Your task to perform on an android device: open device folders in google photos Image 0: 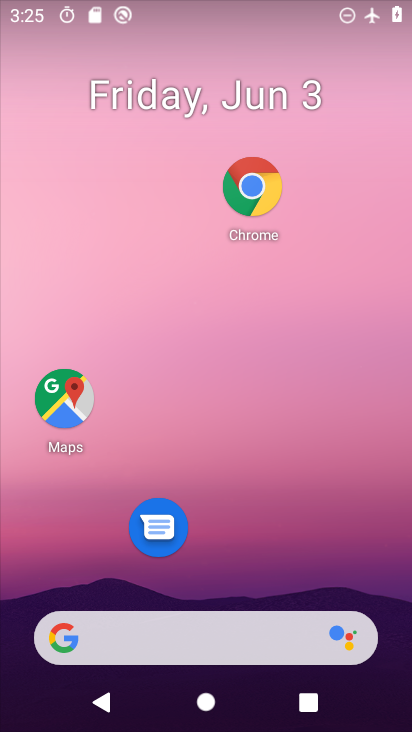
Step 0: click (293, 134)
Your task to perform on an android device: open device folders in google photos Image 1: 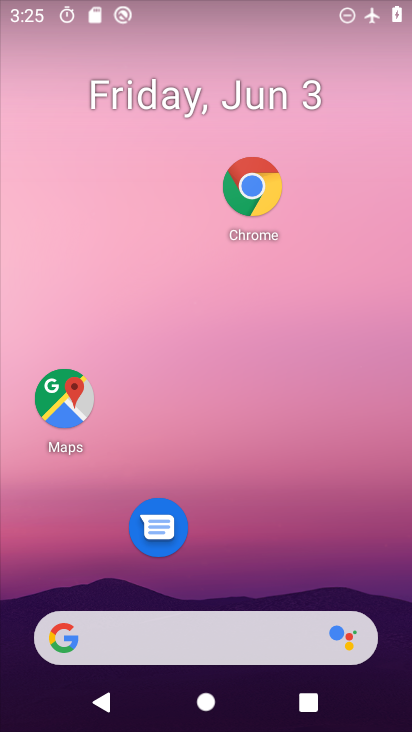
Step 1: drag from (165, 645) to (237, 192)
Your task to perform on an android device: open device folders in google photos Image 2: 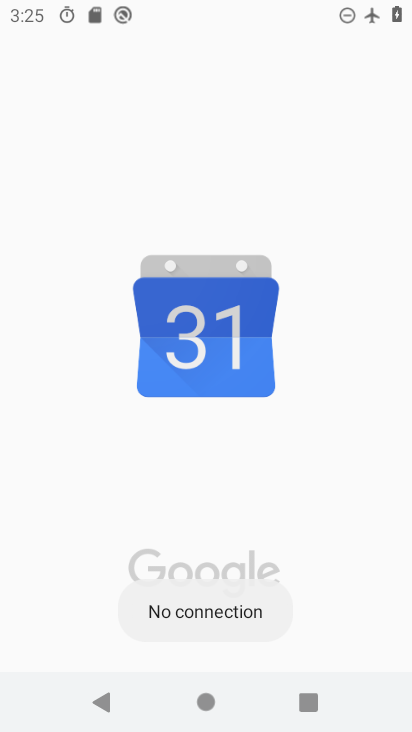
Step 2: press home button
Your task to perform on an android device: open device folders in google photos Image 3: 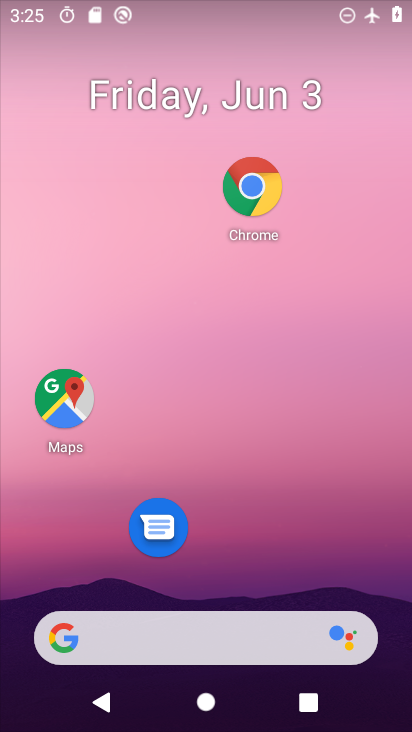
Step 3: drag from (277, 620) to (261, 257)
Your task to perform on an android device: open device folders in google photos Image 4: 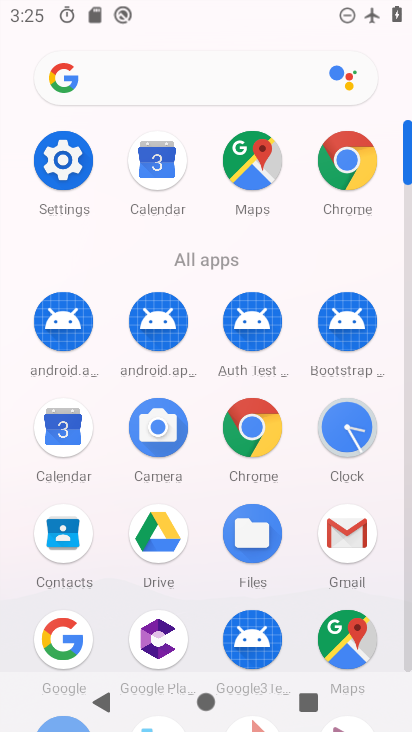
Step 4: drag from (208, 596) to (183, 217)
Your task to perform on an android device: open device folders in google photos Image 5: 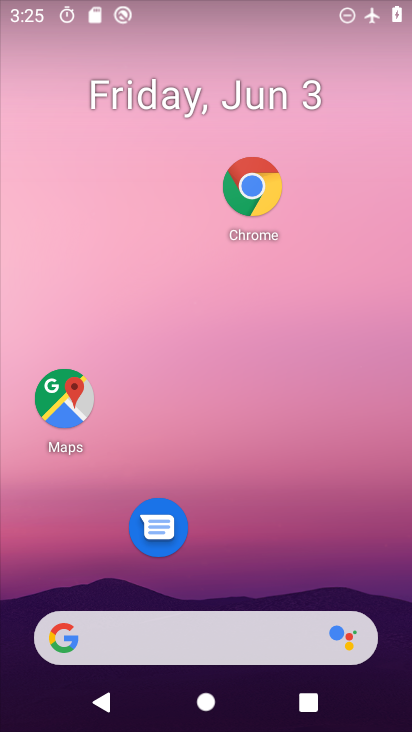
Step 5: drag from (168, 655) to (209, 260)
Your task to perform on an android device: open device folders in google photos Image 6: 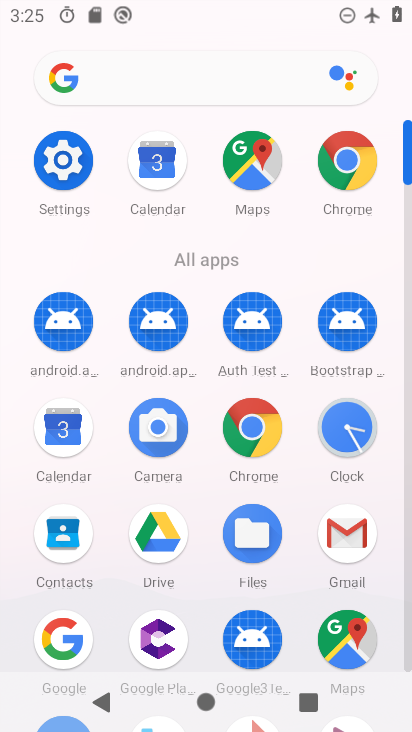
Step 6: drag from (208, 574) to (189, 393)
Your task to perform on an android device: open device folders in google photos Image 7: 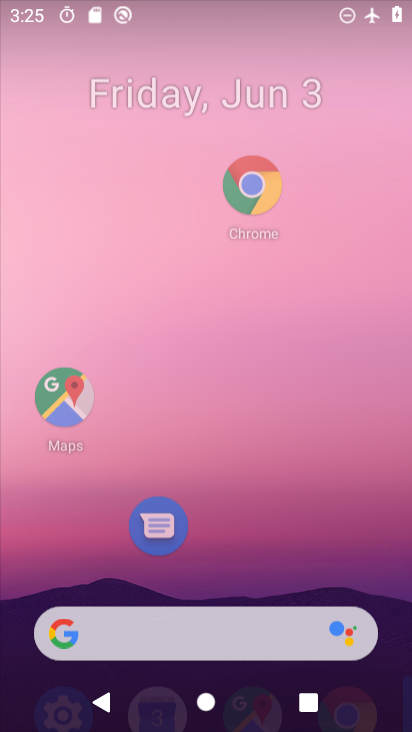
Step 7: click (401, 185)
Your task to perform on an android device: open device folders in google photos Image 8: 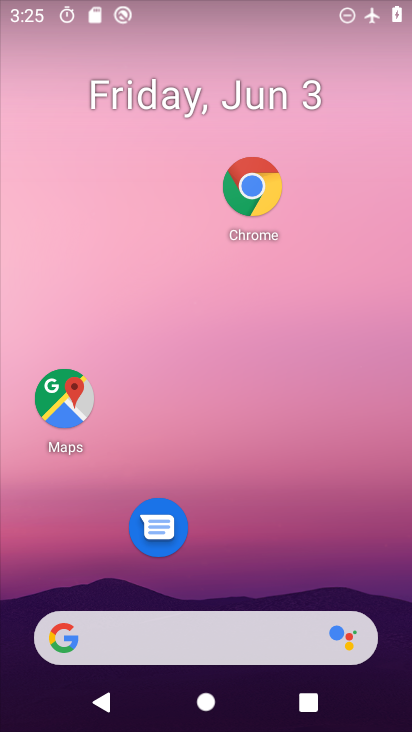
Step 8: drag from (380, 452) to (379, 72)
Your task to perform on an android device: open device folders in google photos Image 9: 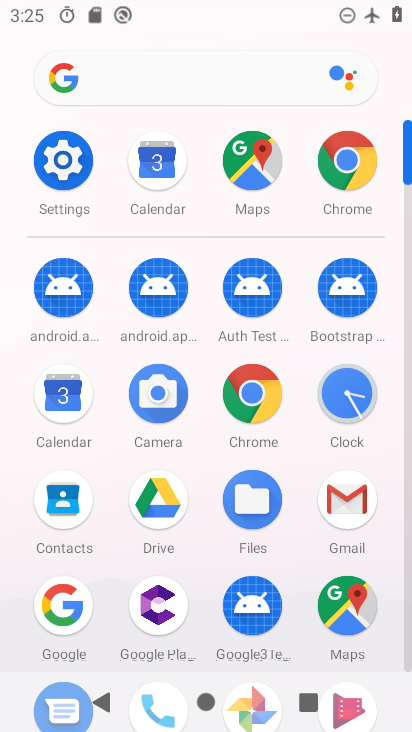
Step 9: click (249, 694)
Your task to perform on an android device: open device folders in google photos Image 10: 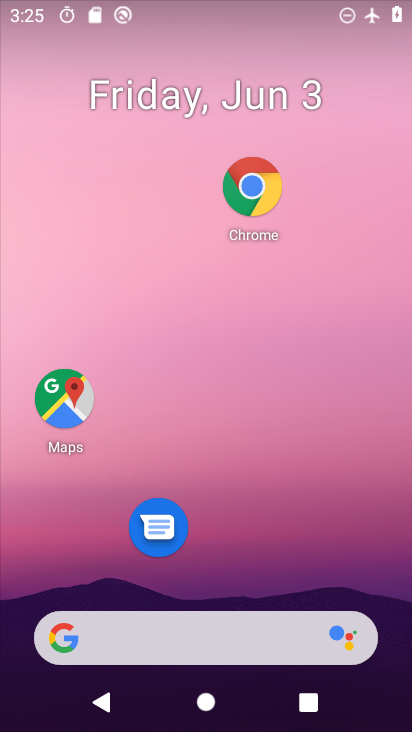
Step 10: task complete